Your task to perform on an android device: Open Reddit.com Image 0: 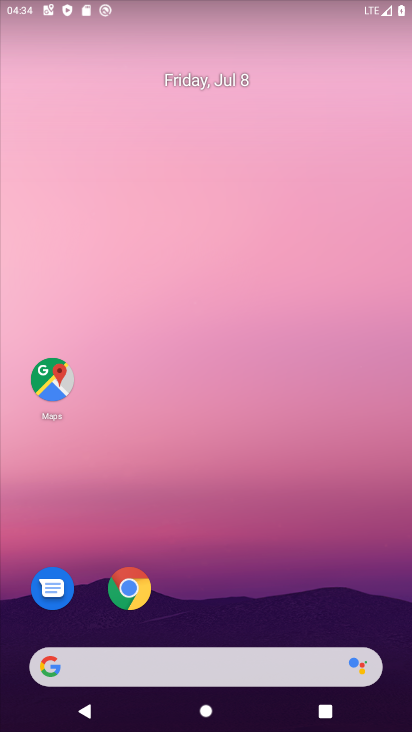
Step 0: drag from (219, 299) to (246, 39)
Your task to perform on an android device: Open Reddit.com Image 1: 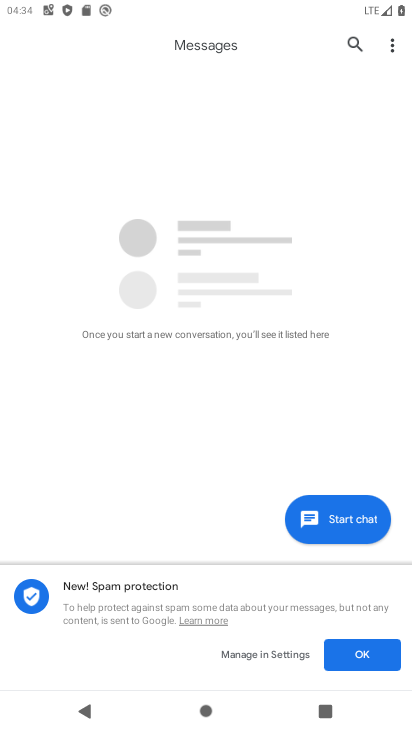
Step 1: press home button
Your task to perform on an android device: Open Reddit.com Image 2: 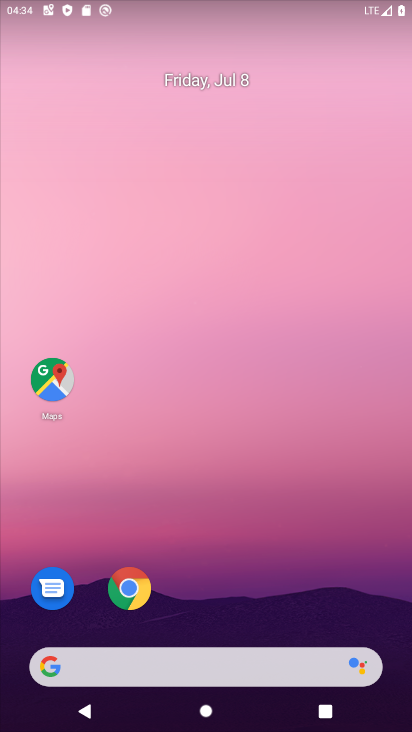
Step 2: click (127, 588)
Your task to perform on an android device: Open Reddit.com Image 3: 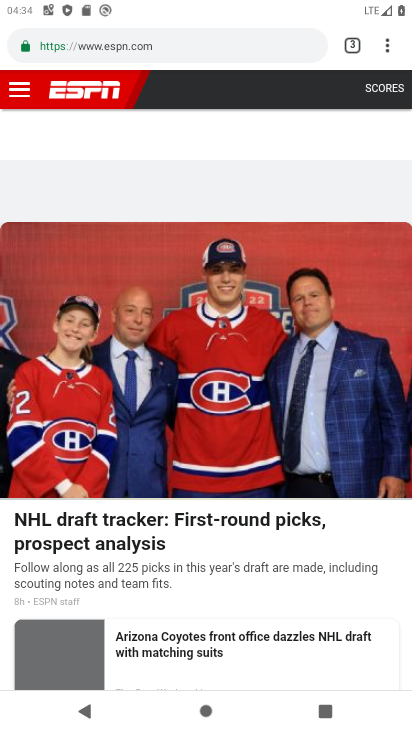
Step 3: press back button
Your task to perform on an android device: Open Reddit.com Image 4: 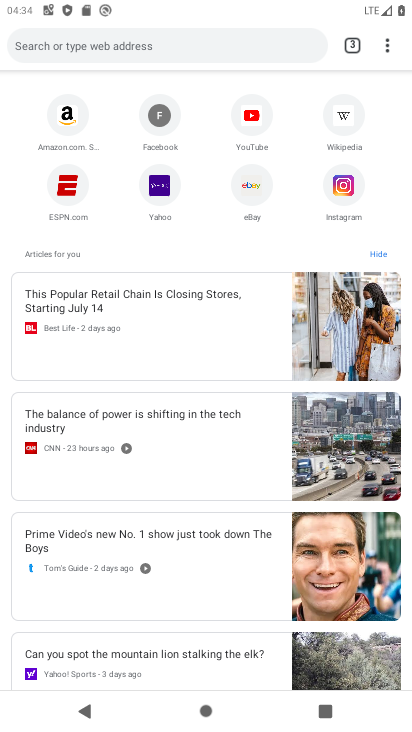
Step 4: click (179, 44)
Your task to perform on an android device: Open Reddit.com Image 5: 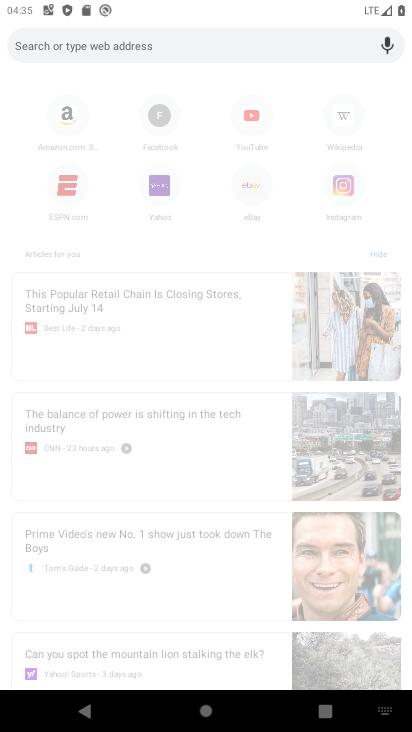
Step 5: type "www.reddit.com"
Your task to perform on an android device: Open Reddit.com Image 6: 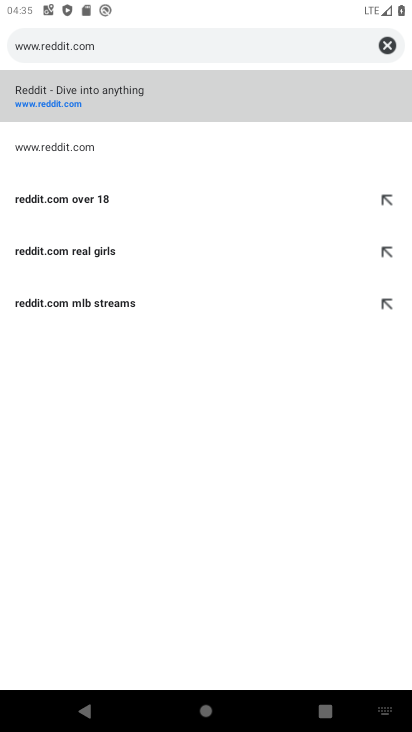
Step 6: click (49, 90)
Your task to perform on an android device: Open Reddit.com Image 7: 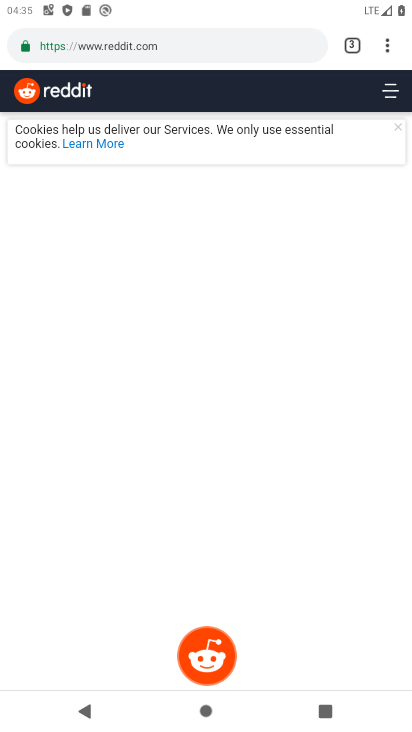
Step 7: task complete